Your task to perform on an android device: Do I have any events tomorrow? Image 0: 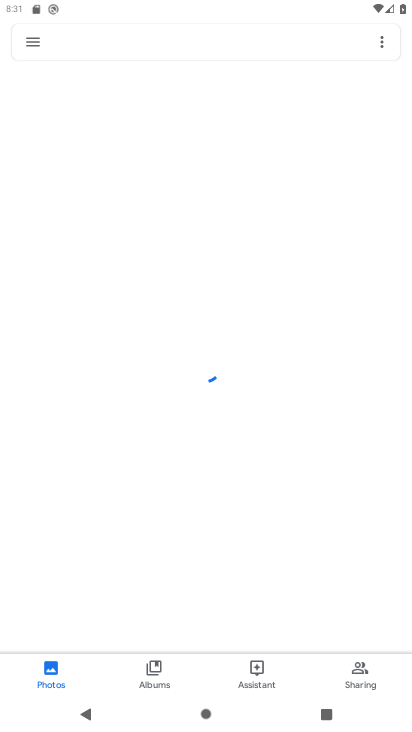
Step 0: press home button
Your task to perform on an android device: Do I have any events tomorrow? Image 1: 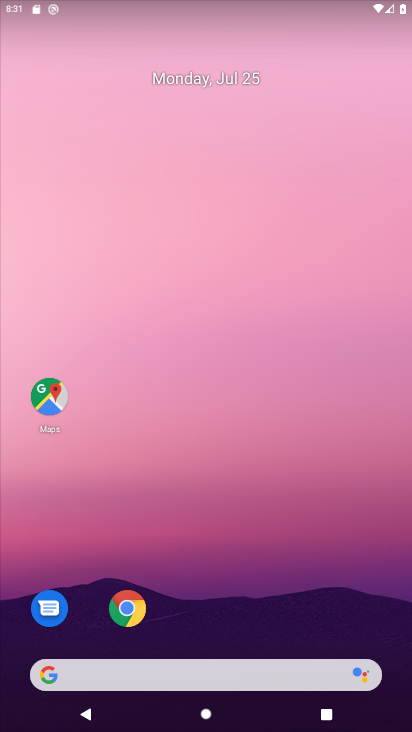
Step 1: drag from (220, 612) to (193, 108)
Your task to perform on an android device: Do I have any events tomorrow? Image 2: 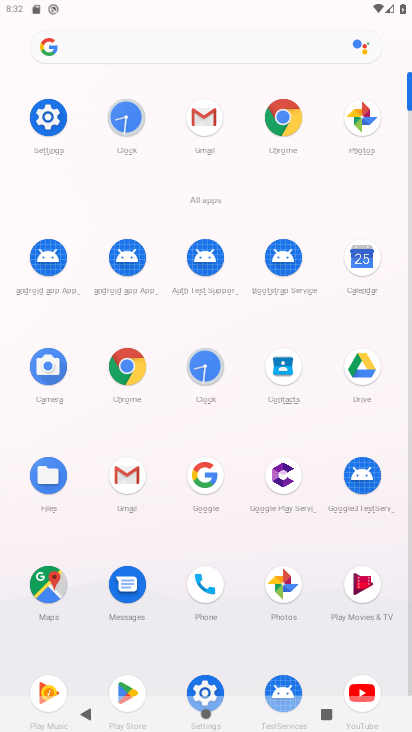
Step 2: click (356, 258)
Your task to perform on an android device: Do I have any events tomorrow? Image 3: 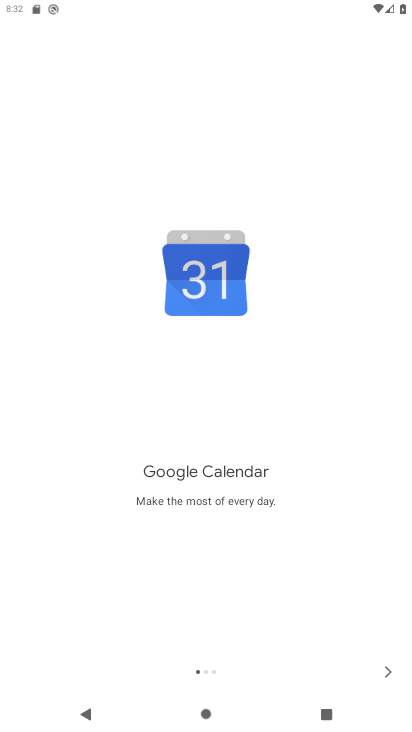
Step 3: click (390, 666)
Your task to perform on an android device: Do I have any events tomorrow? Image 4: 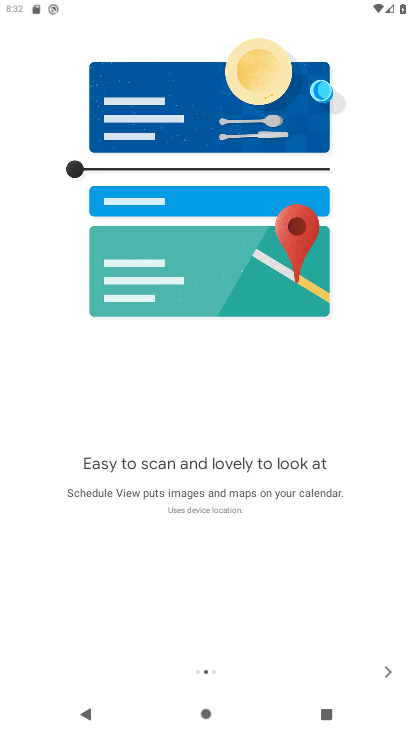
Step 4: click (390, 666)
Your task to perform on an android device: Do I have any events tomorrow? Image 5: 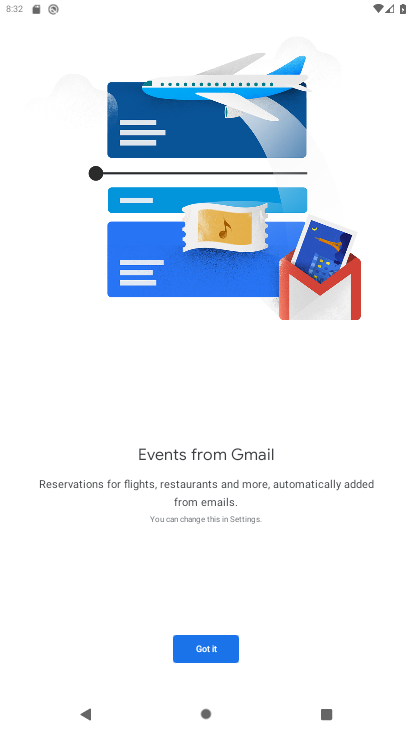
Step 5: click (192, 652)
Your task to perform on an android device: Do I have any events tomorrow? Image 6: 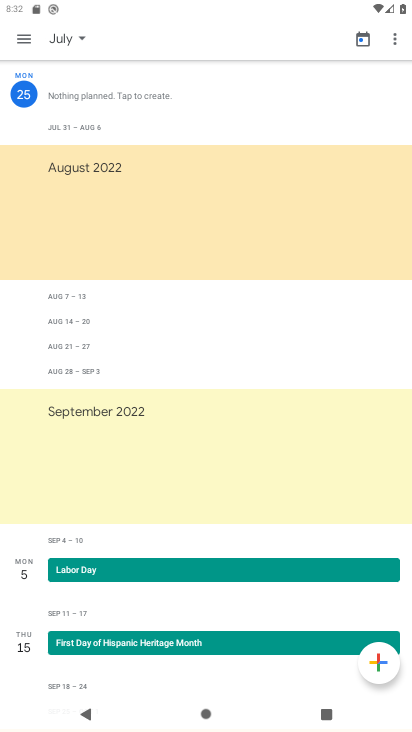
Step 6: click (49, 28)
Your task to perform on an android device: Do I have any events tomorrow? Image 7: 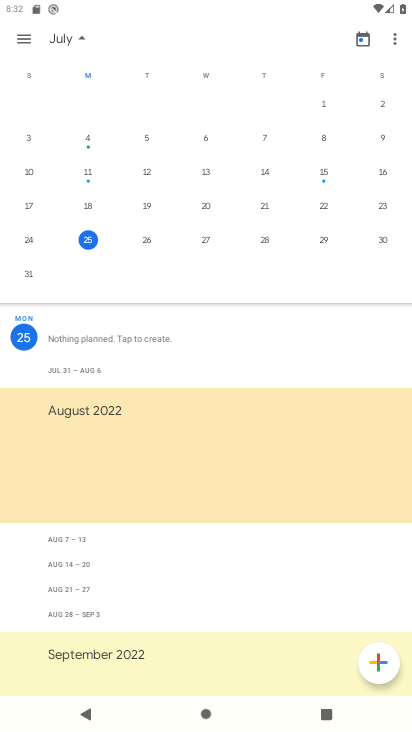
Step 7: click (148, 245)
Your task to perform on an android device: Do I have any events tomorrow? Image 8: 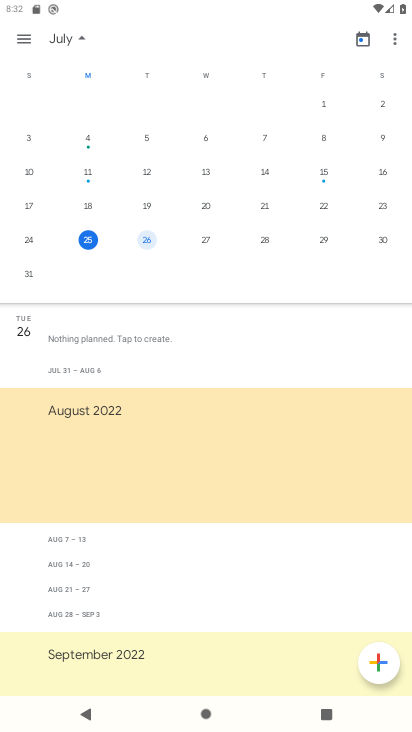
Step 8: task complete